Your task to perform on an android device: What's the news about the US dollar exchange rate? Image 0: 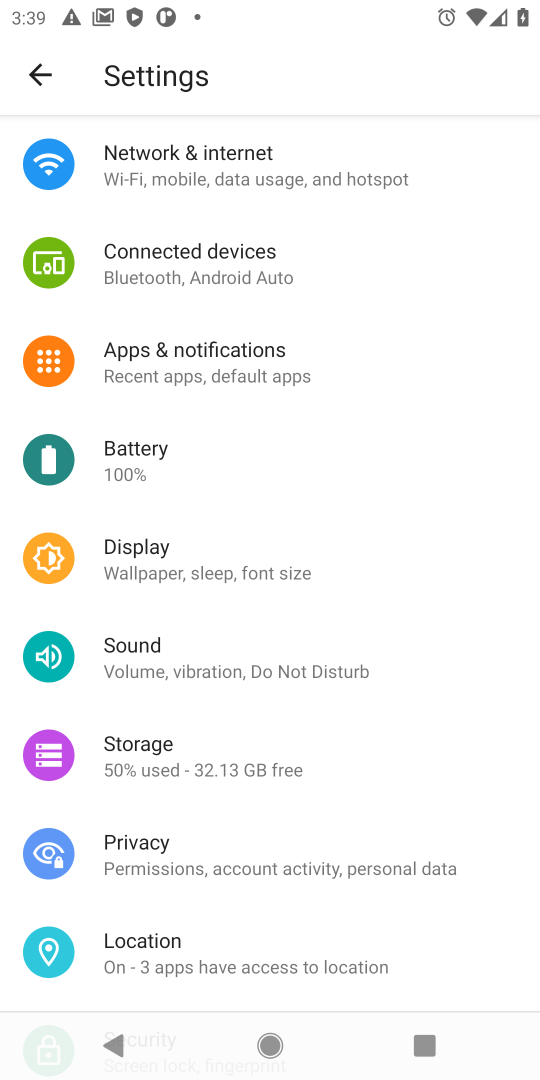
Step 0: press home button
Your task to perform on an android device: What's the news about the US dollar exchange rate? Image 1: 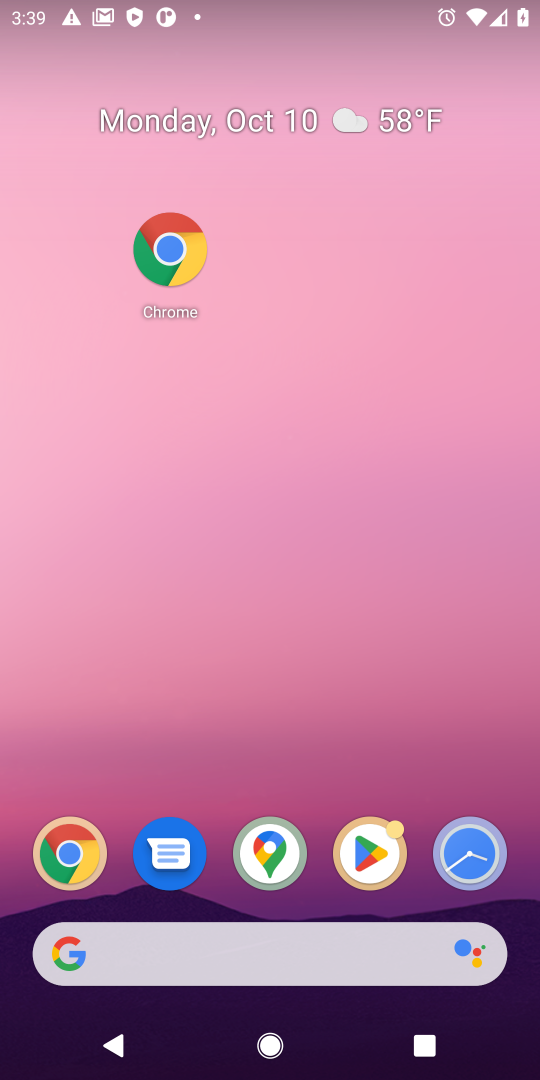
Step 1: click (60, 877)
Your task to perform on an android device: What's the news about the US dollar exchange rate? Image 2: 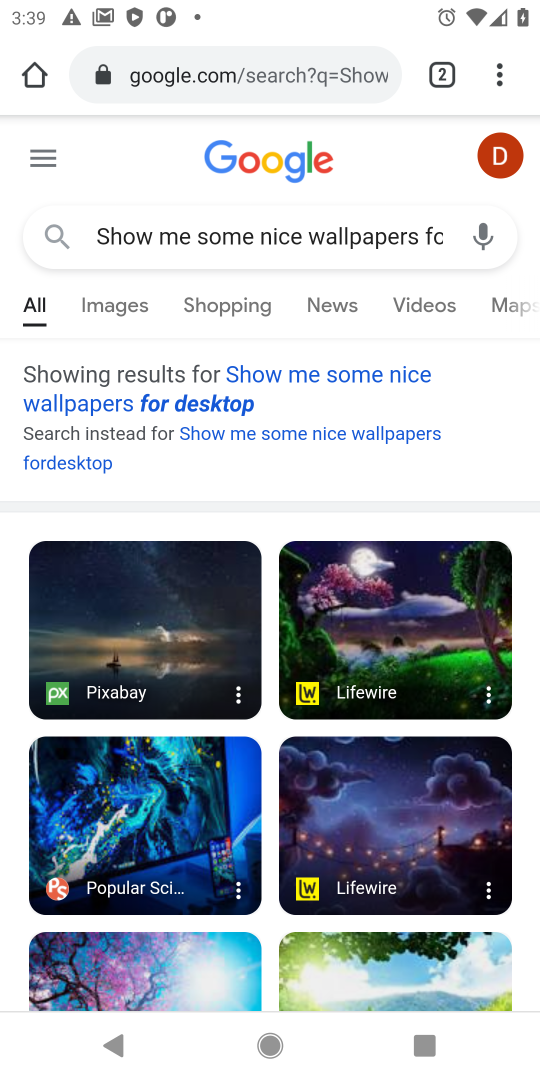
Step 2: click (247, 75)
Your task to perform on an android device: What's the news about the US dollar exchange rate? Image 3: 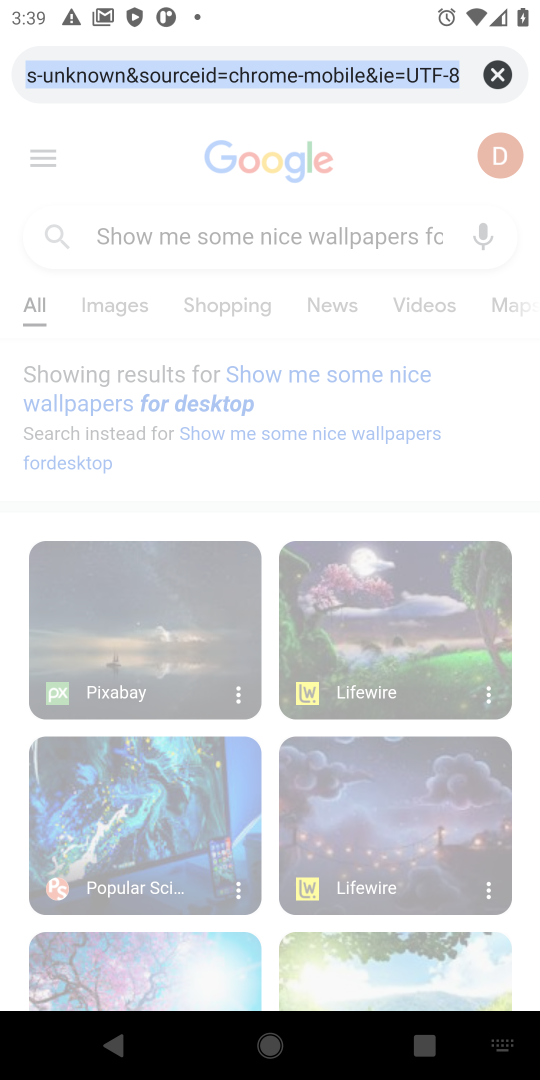
Step 3: type "What's the news about the US dollar exchange rate?"
Your task to perform on an android device: What's the news about the US dollar exchange rate? Image 4: 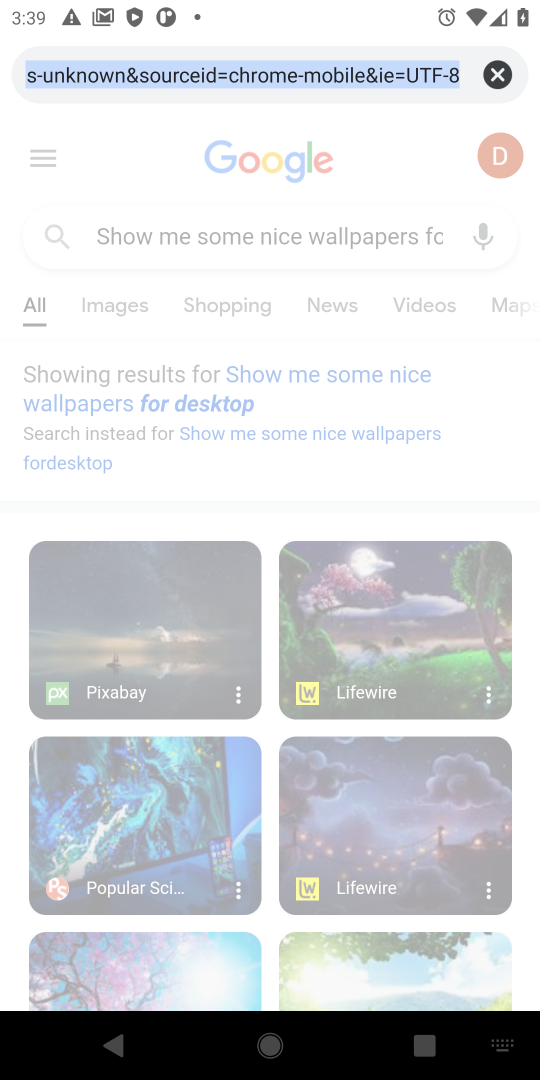
Step 4: click (348, 72)
Your task to perform on an android device: What's the news about the US dollar exchange rate? Image 5: 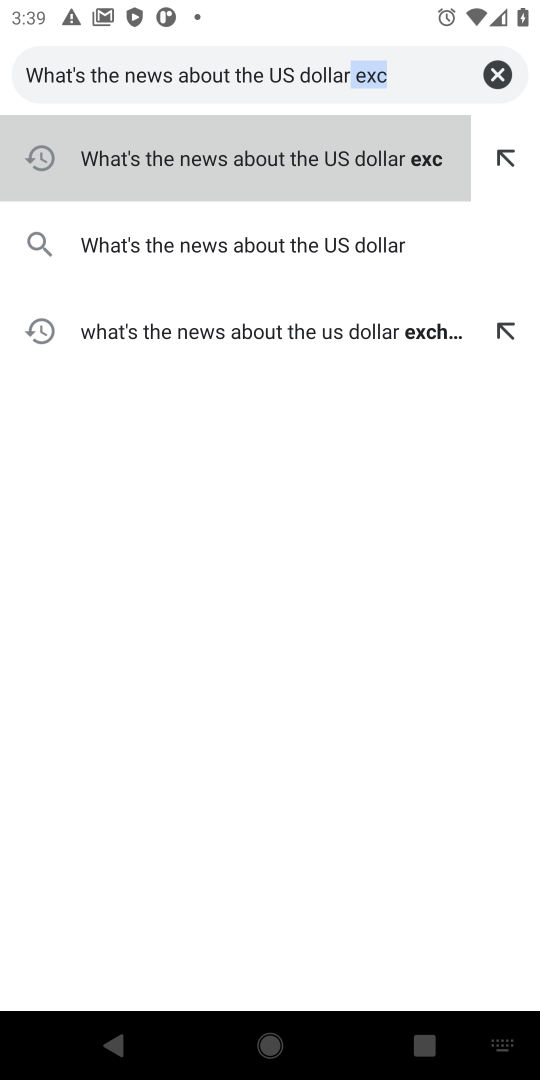
Step 5: click (389, 170)
Your task to perform on an android device: What's the news about the US dollar exchange rate? Image 6: 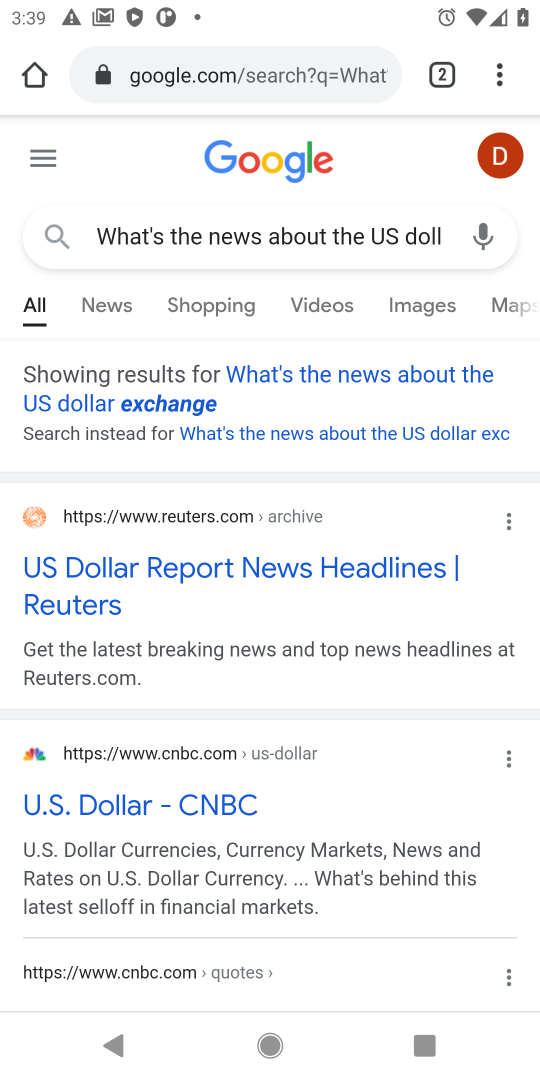
Step 6: click (76, 600)
Your task to perform on an android device: What's the news about the US dollar exchange rate? Image 7: 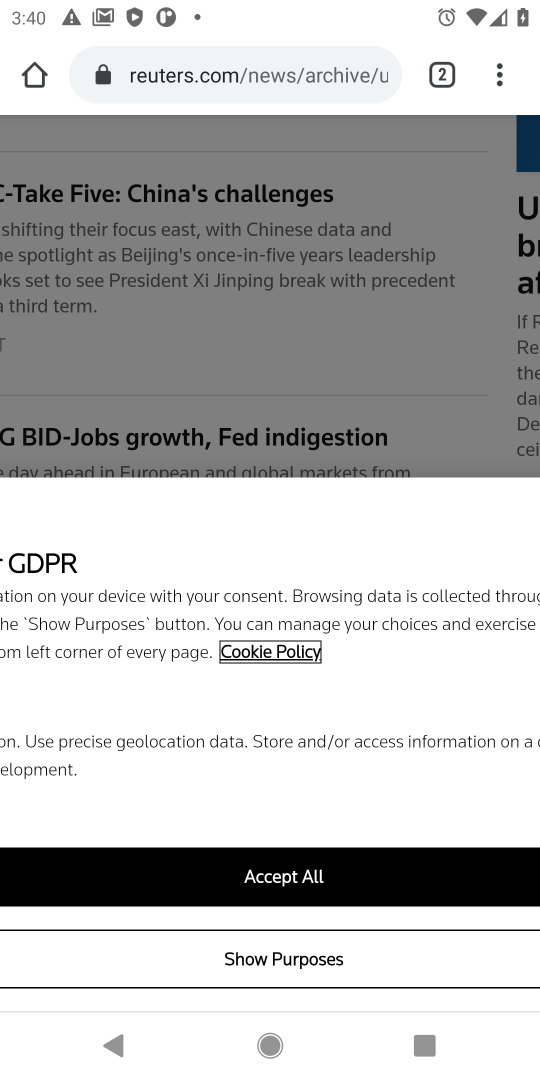
Step 7: task complete